Your task to perform on an android device: turn off picture-in-picture Image 0: 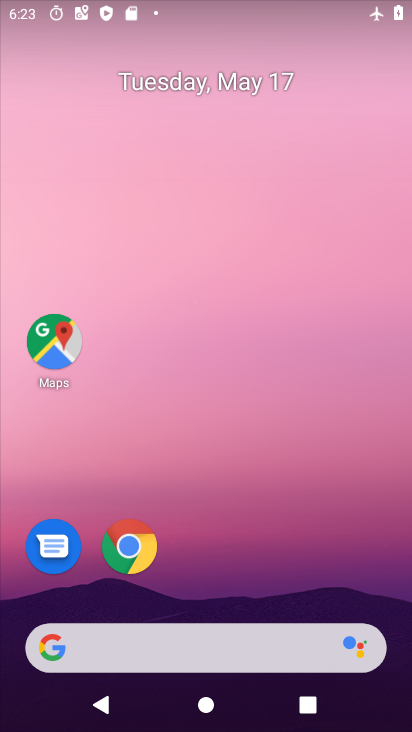
Step 0: drag from (201, 175) to (206, 128)
Your task to perform on an android device: turn off picture-in-picture Image 1: 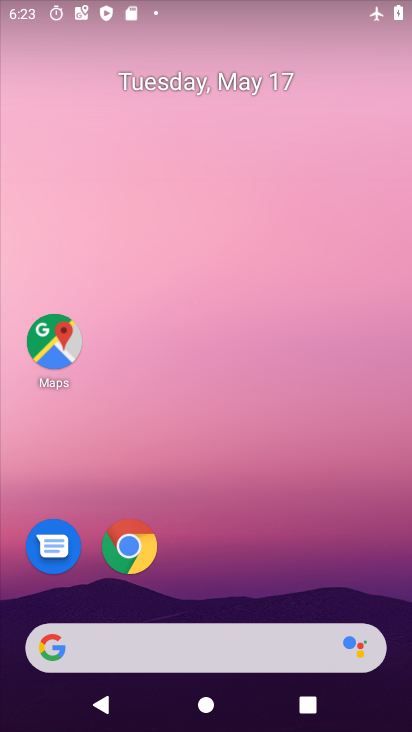
Step 1: drag from (228, 565) to (190, 31)
Your task to perform on an android device: turn off picture-in-picture Image 2: 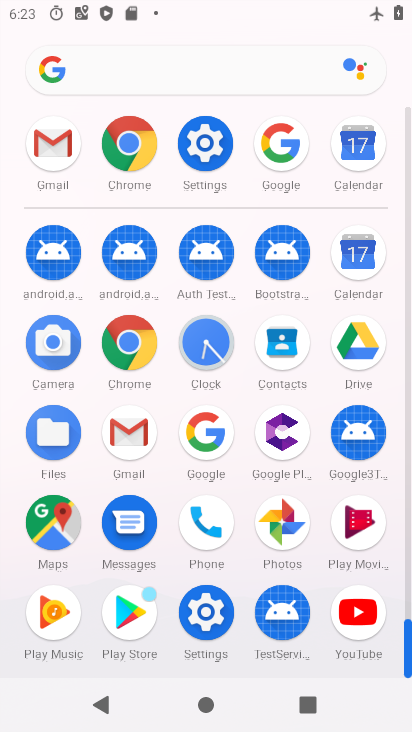
Step 2: click (202, 166)
Your task to perform on an android device: turn off picture-in-picture Image 3: 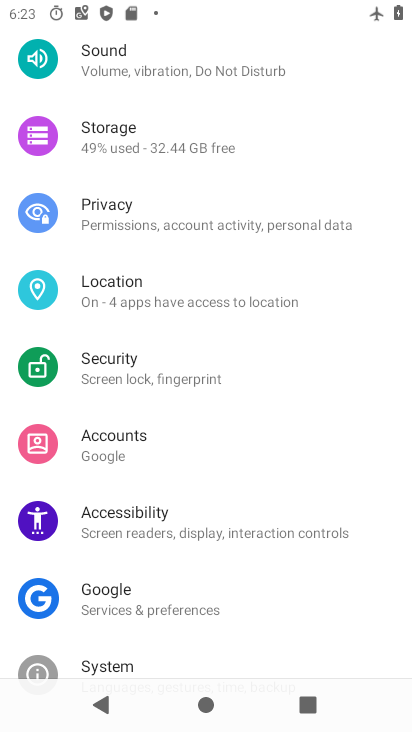
Step 3: drag from (235, 232) to (135, 520)
Your task to perform on an android device: turn off picture-in-picture Image 4: 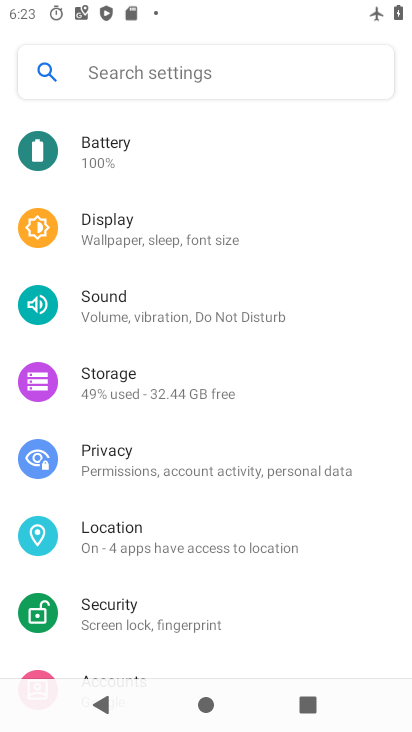
Step 4: drag from (189, 315) to (129, 647)
Your task to perform on an android device: turn off picture-in-picture Image 5: 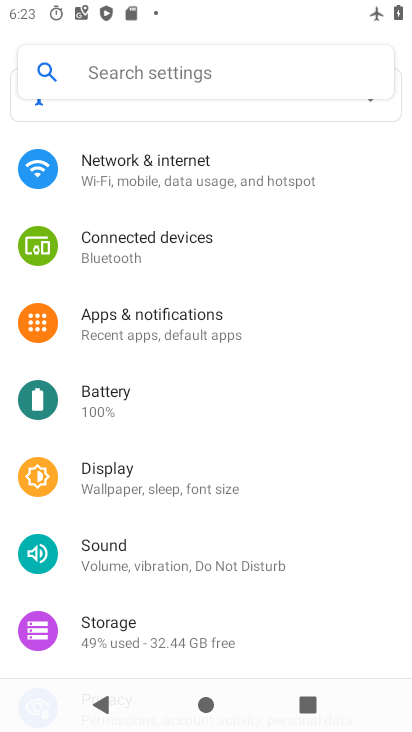
Step 5: click (186, 345)
Your task to perform on an android device: turn off picture-in-picture Image 6: 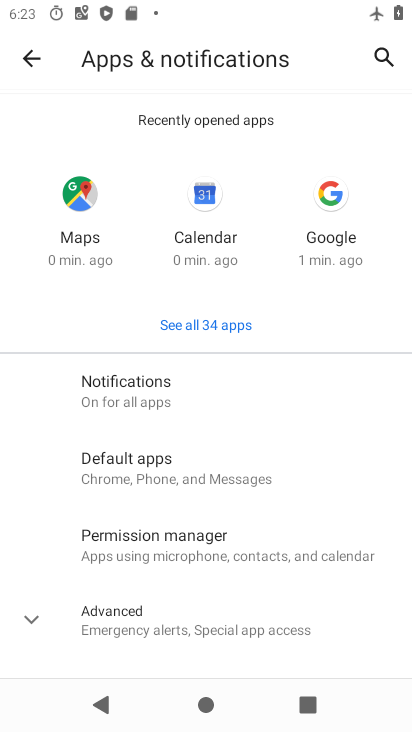
Step 6: drag from (148, 563) to (142, 239)
Your task to perform on an android device: turn off picture-in-picture Image 7: 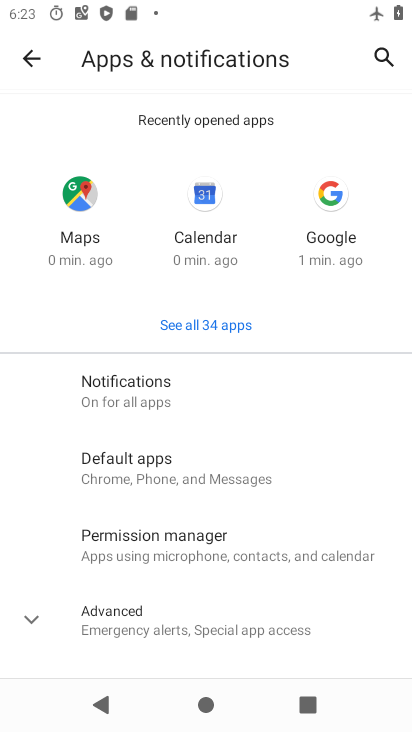
Step 7: drag from (104, 630) to (158, 407)
Your task to perform on an android device: turn off picture-in-picture Image 8: 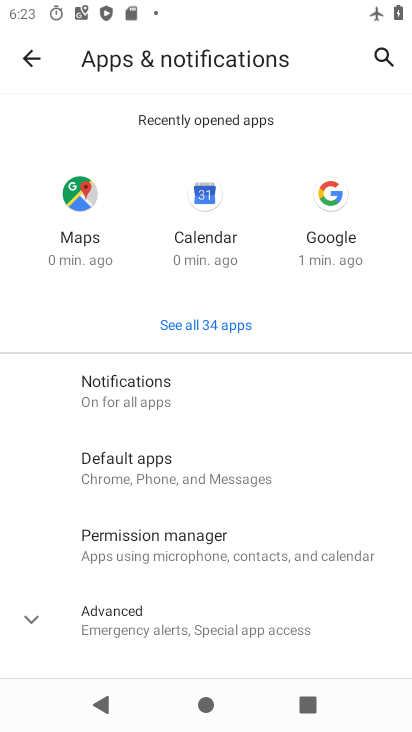
Step 8: drag from (141, 576) to (169, 350)
Your task to perform on an android device: turn off picture-in-picture Image 9: 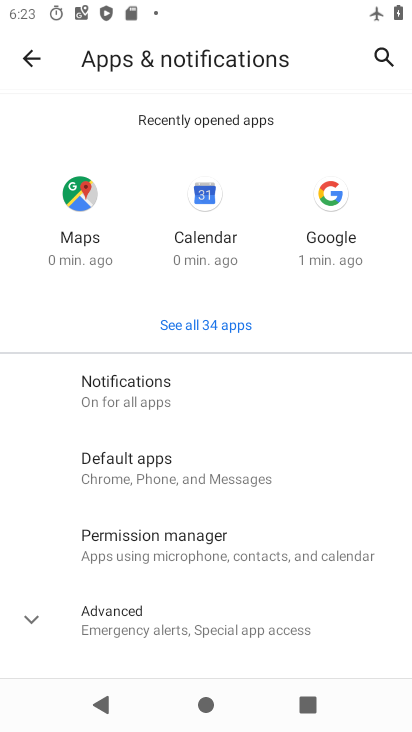
Step 9: click (96, 637)
Your task to perform on an android device: turn off picture-in-picture Image 10: 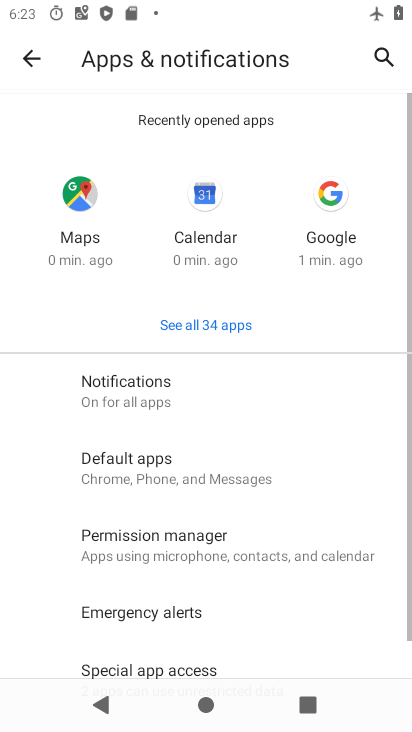
Step 10: drag from (96, 637) to (113, 372)
Your task to perform on an android device: turn off picture-in-picture Image 11: 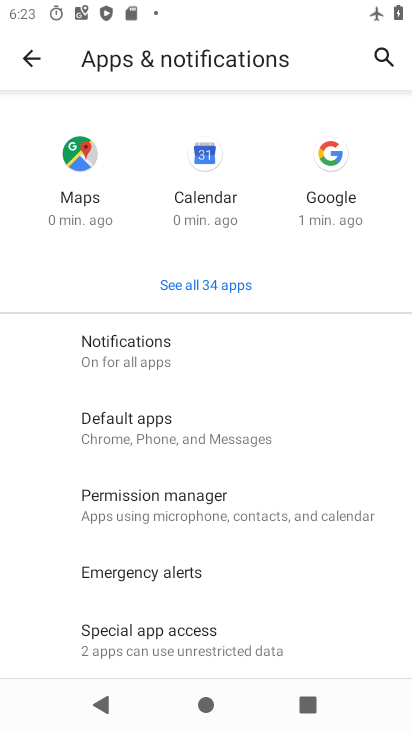
Step 11: click (118, 634)
Your task to perform on an android device: turn off picture-in-picture Image 12: 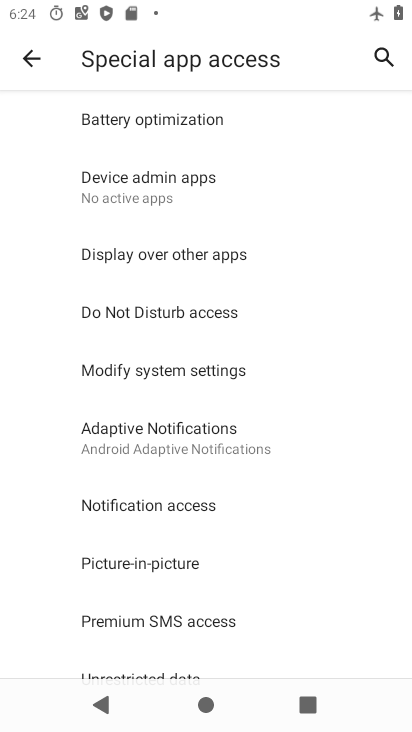
Step 12: click (146, 572)
Your task to perform on an android device: turn off picture-in-picture Image 13: 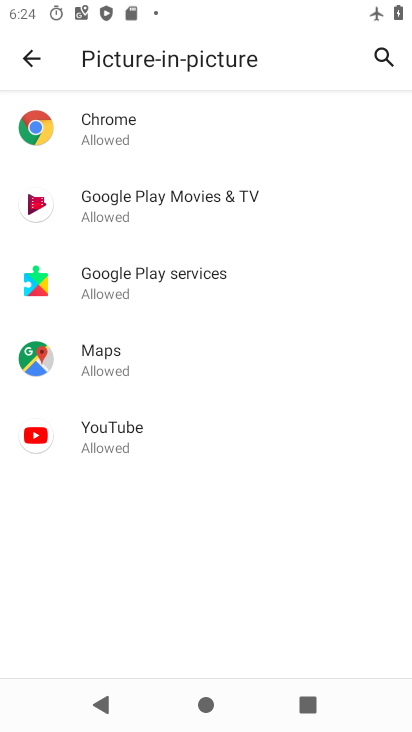
Step 13: click (108, 133)
Your task to perform on an android device: turn off picture-in-picture Image 14: 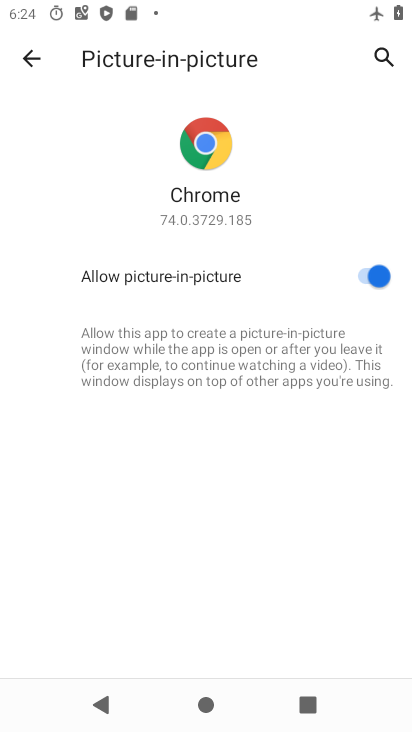
Step 14: click (365, 273)
Your task to perform on an android device: turn off picture-in-picture Image 15: 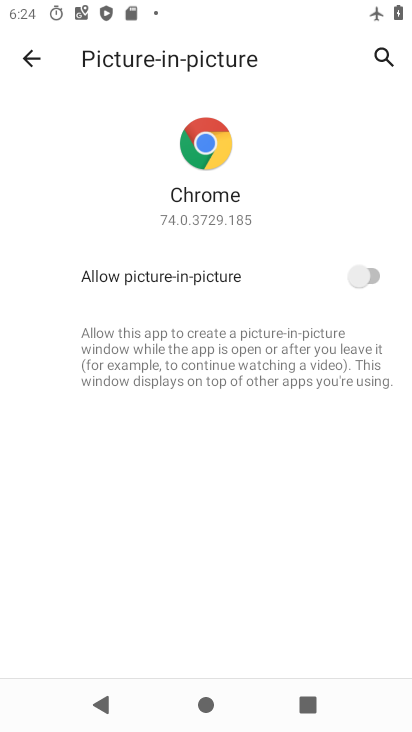
Step 15: task complete